Your task to perform on an android device: toggle javascript in the chrome app Image 0: 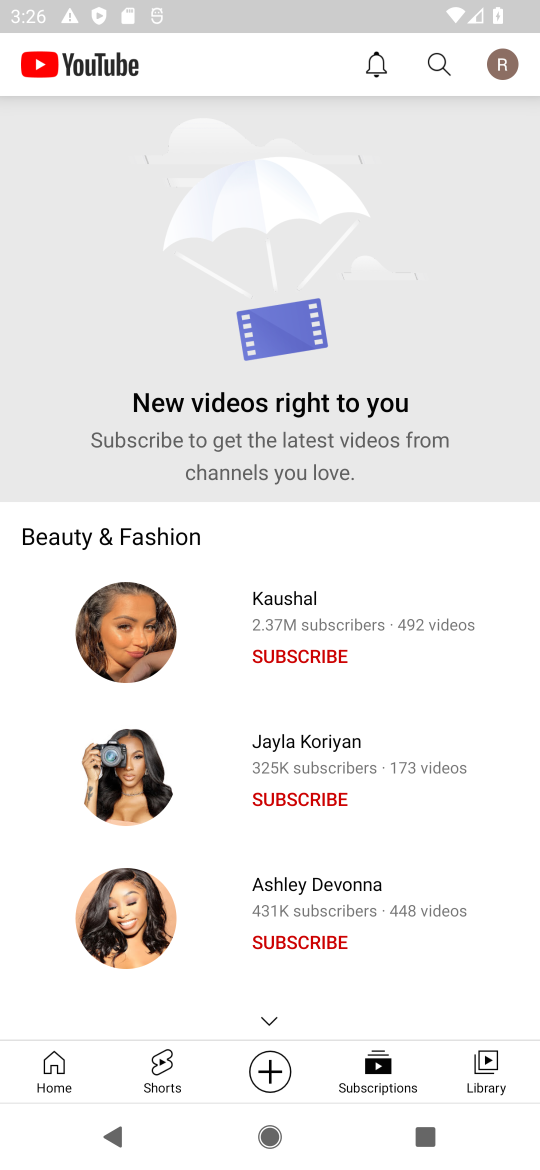
Step 0: press home button
Your task to perform on an android device: toggle javascript in the chrome app Image 1: 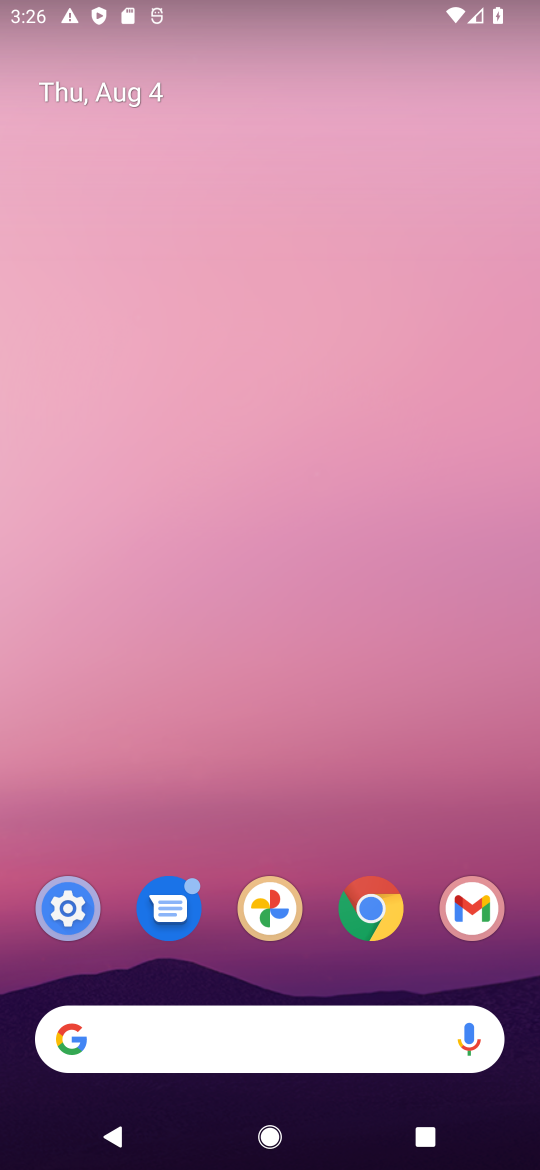
Step 1: drag from (224, 852) to (365, 42)
Your task to perform on an android device: toggle javascript in the chrome app Image 2: 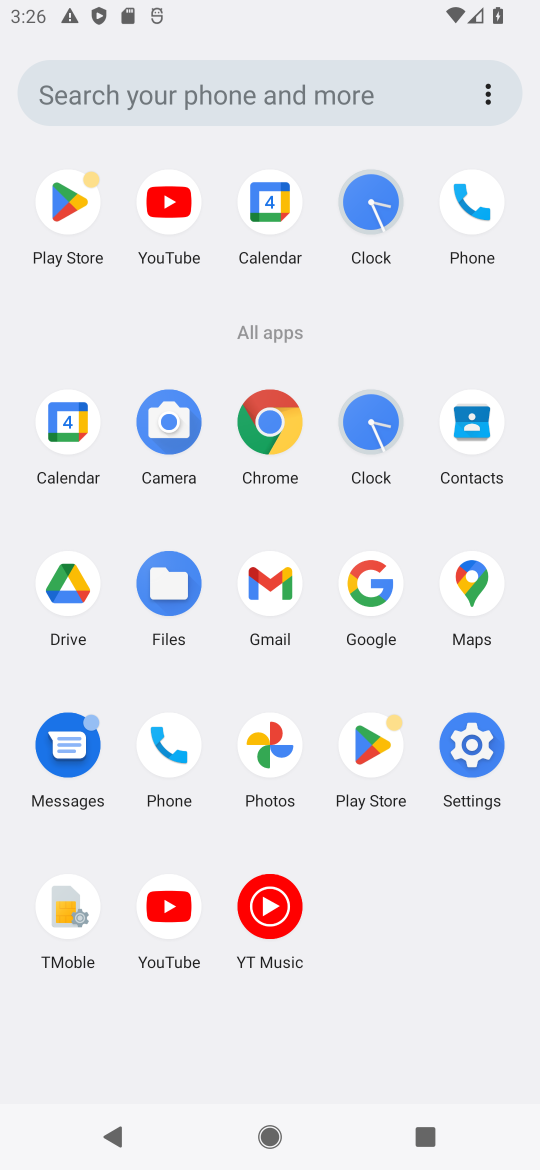
Step 2: click (265, 419)
Your task to perform on an android device: toggle javascript in the chrome app Image 3: 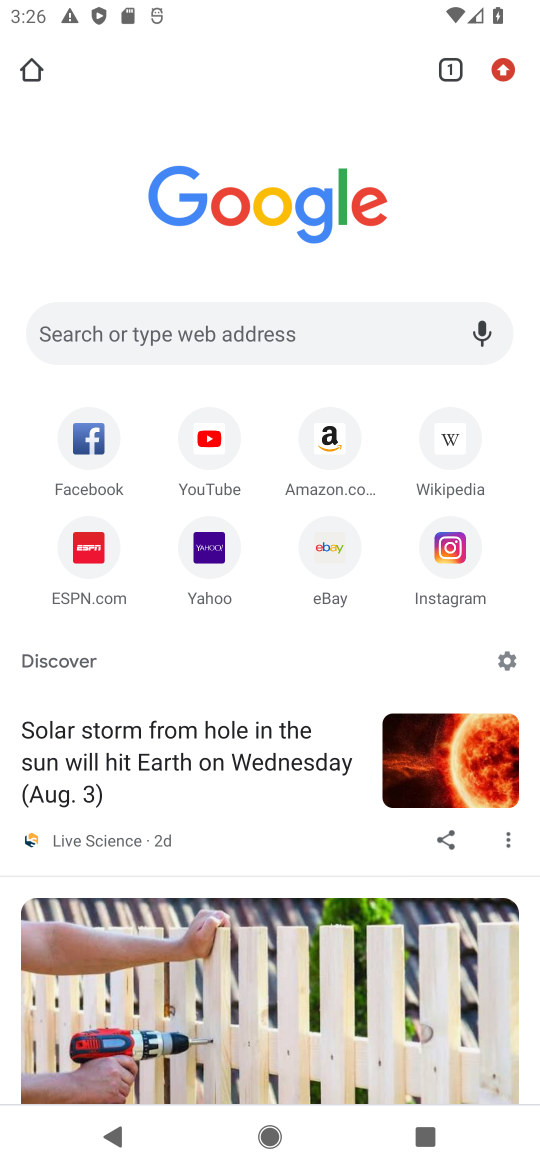
Step 3: drag from (504, 76) to (379, 702)
Your task to perform on an android device: toggle javascript in the chrome app Image 4: 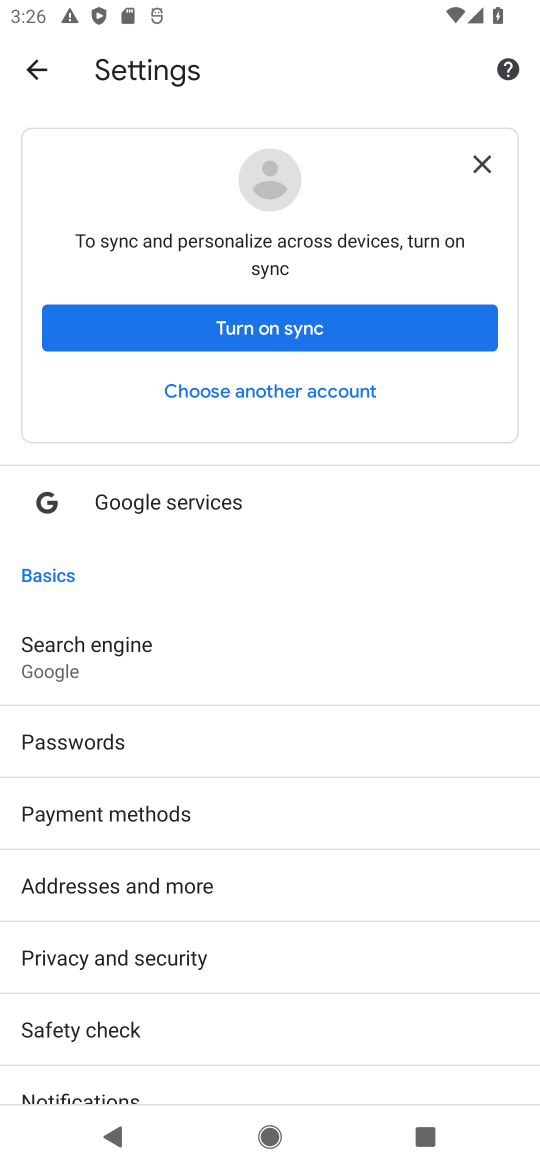
Step 4: drag from (369, 1035) to (466, 312)
Your task to perform on an android device: toggle javascript in the chrome app Image 5: 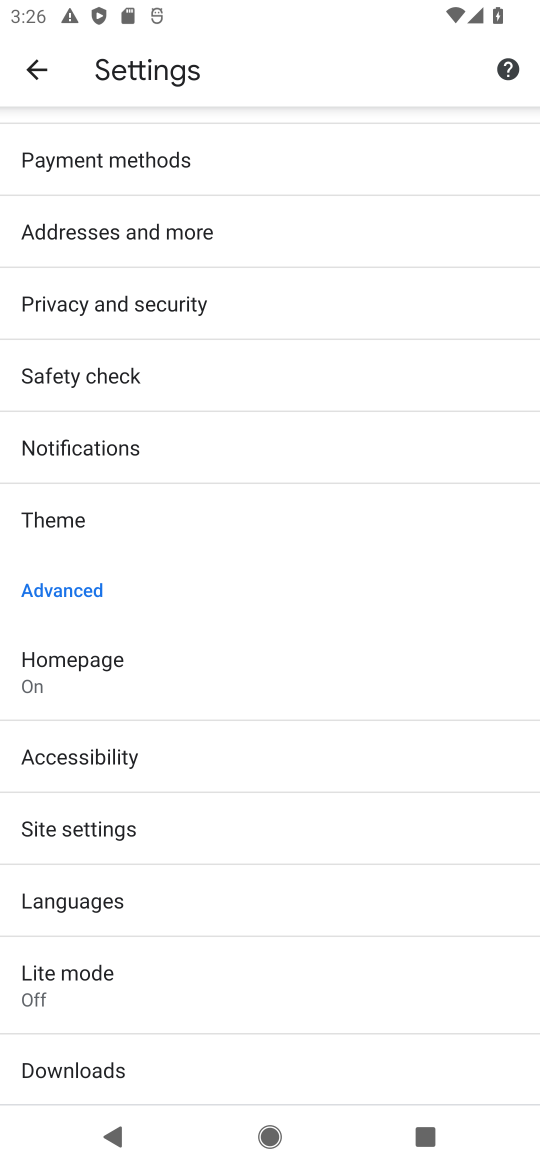
Step 5: click (114, 837)
Your task to perform on an android device: toggle javascript in the chrome app Image 6: 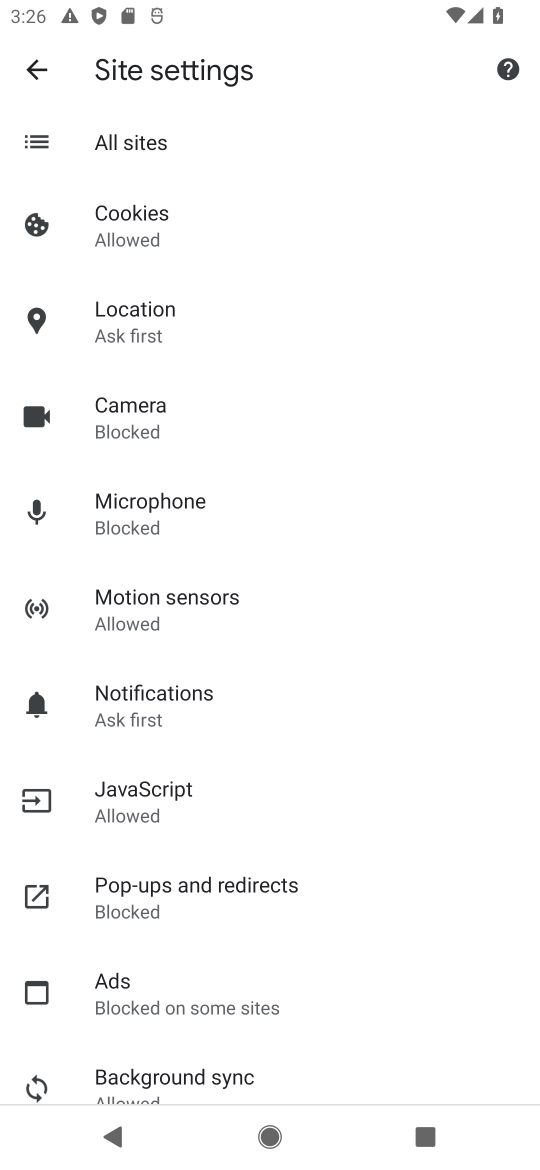
Step 6: click (113, 810)
Your task to perform on an android device: toggle javascript in the chrome app Image 7: 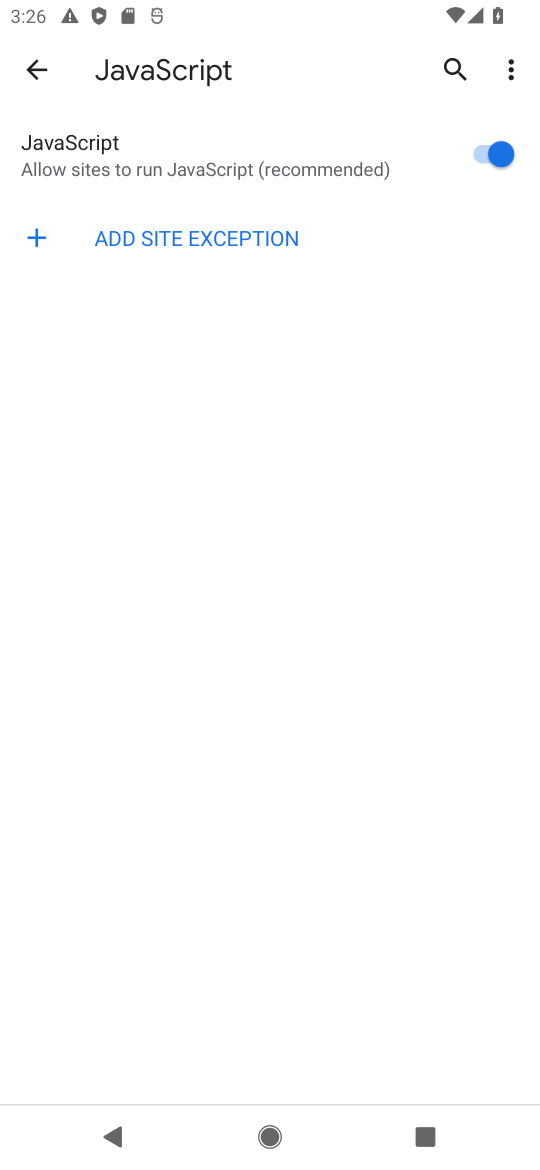
Step 7: task complete